Your task to perform on an android device: open app "NewsBreak: Local News & Alerts" (install if not already installed) Image 0: 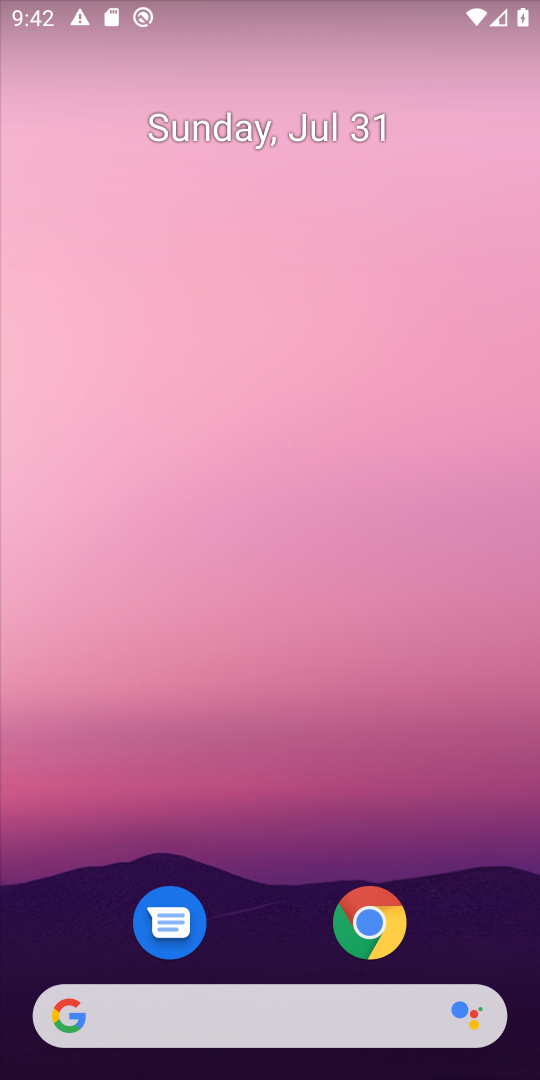
Step 0: drag from (289, 1033) to (289, 215)
Your task to perform on an android device: open app "NewsBreak: Local News & Alerts" (install if not already installed) Image 1: 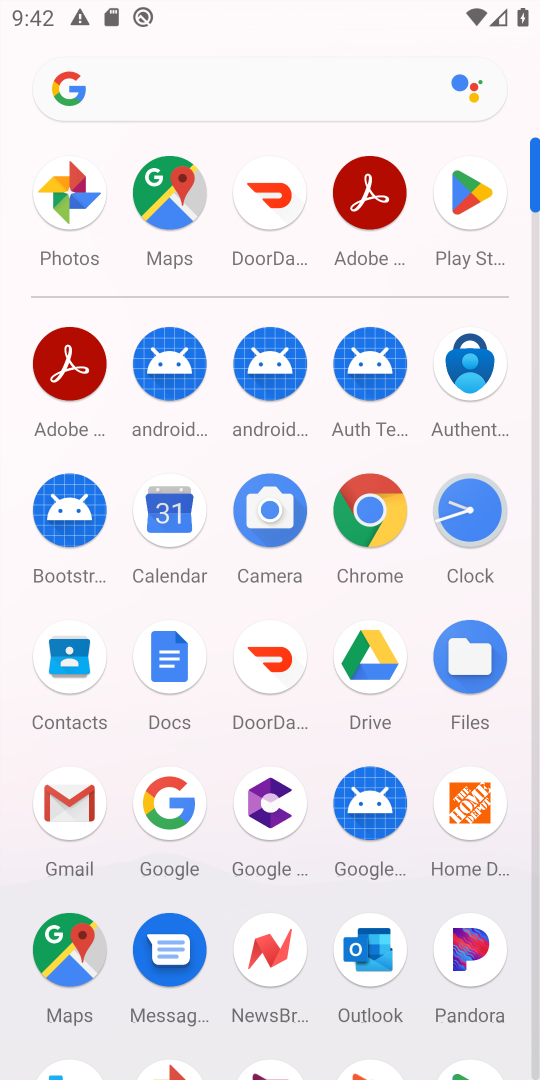
Step 1: drag from (324, 918) to (339, 536)
Your task to perform on an android device: open app "NewsBreak: Local News & Alerts" (install if not already installed) Image 2: 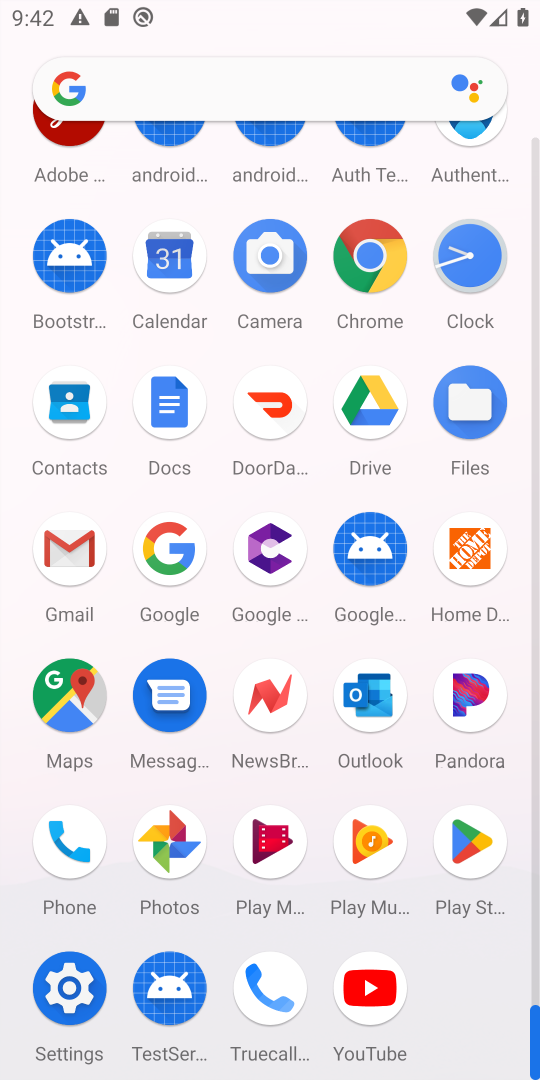
Step 2: click (271, 690)
Your task to perform on an android device: open app "NewsBreak: Local News & Alerts" (install if not already installed) Image 3: 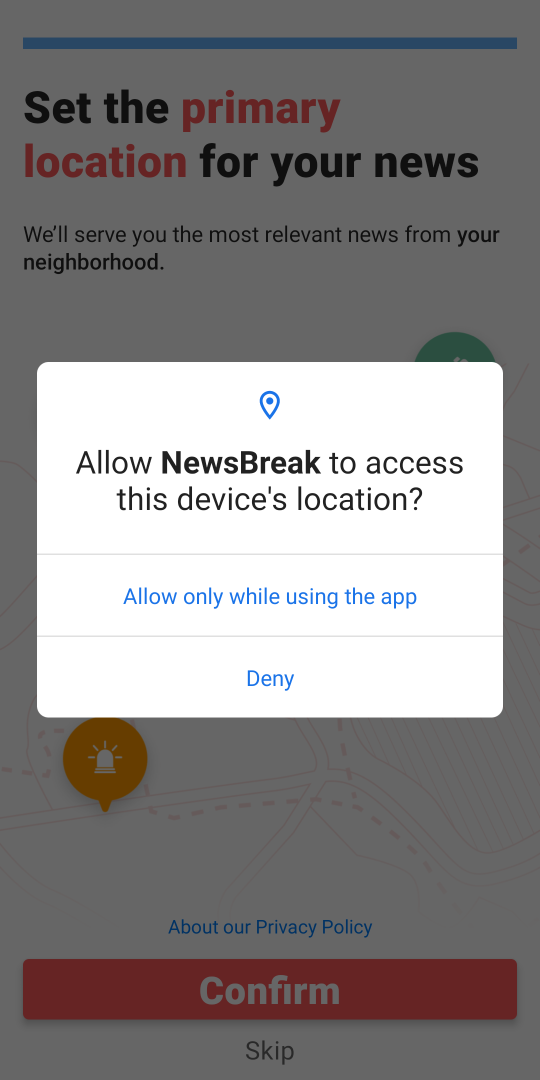
Step 3: click (280, 678)
Your task to perform on an android device: open app "NewsBreak: Local News & Alerts" (install if not already installed) Image 4: 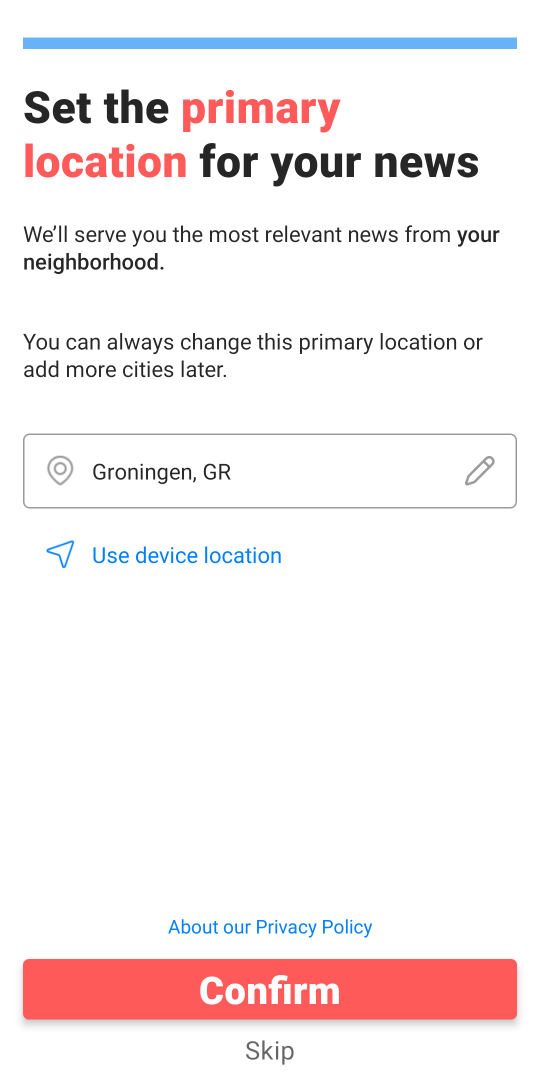
Step 4: task complete